Your task to perform on an android device: find snoozed emails in the gmail app Image 0: 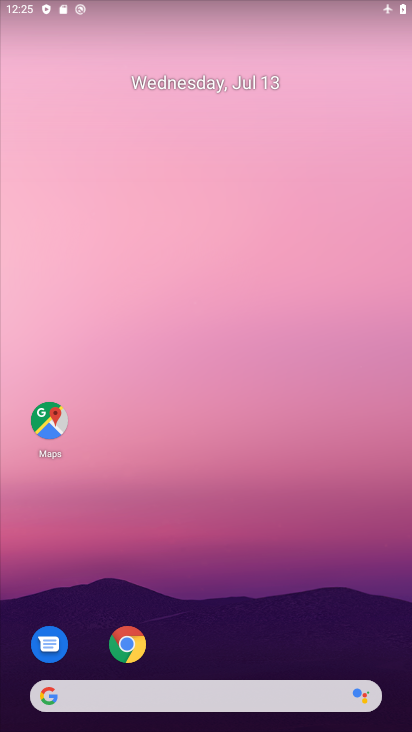
Step 0: drag from (268, 601) to (232, 173)
Your task to perform on an android device: find snoozed emails in the gmail app Image 1: 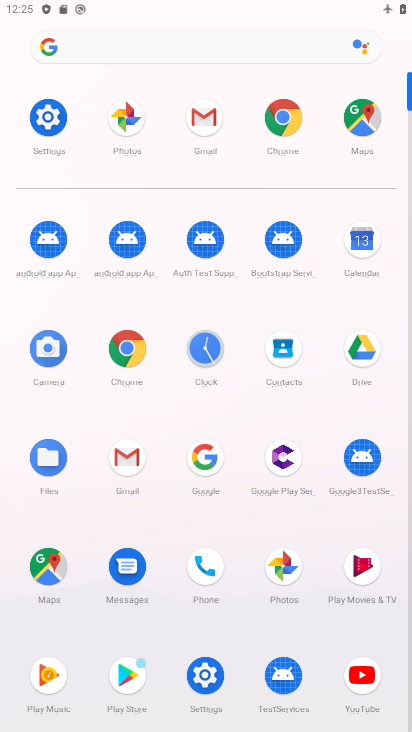
Step 1: click (204, 119)
Your task to perform on an android device: find snoozed emails in the gmail app Image 2: 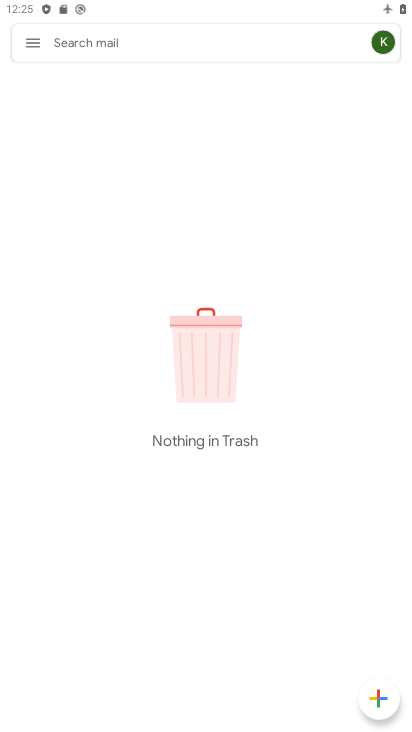
Step 2: click (31, 42)
Your task to perform on an android device: find snoozed emails in the gmail app Image 3: 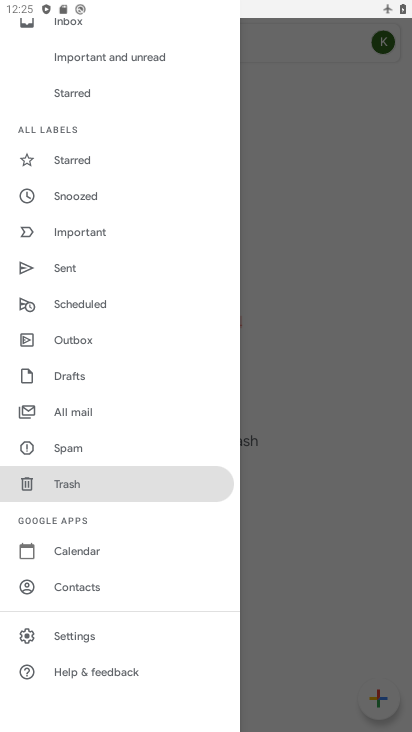
Step 3: click (92, 200)
Your task to perform on an android device: find snoozed emails in the gmail app Image 4: 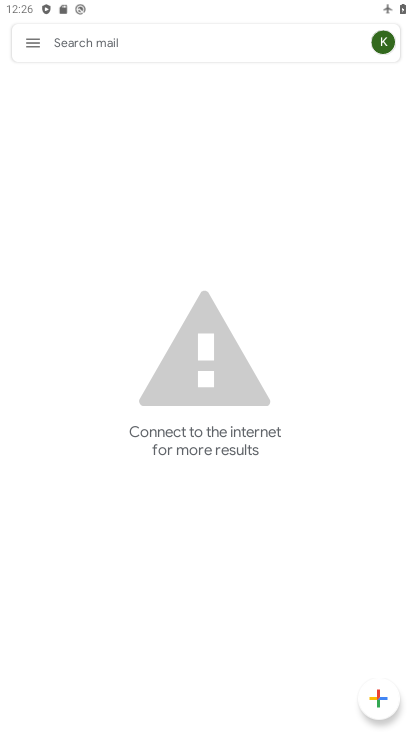
Step 4: task complete